Your task to perform on an android device: What is the recent news? Image 0: 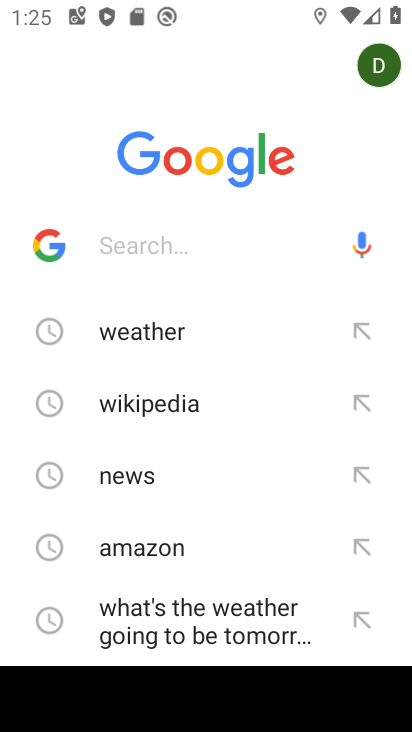
Step 0: press home button
Your task to perform on an android device: What is the recent news? Image 1: 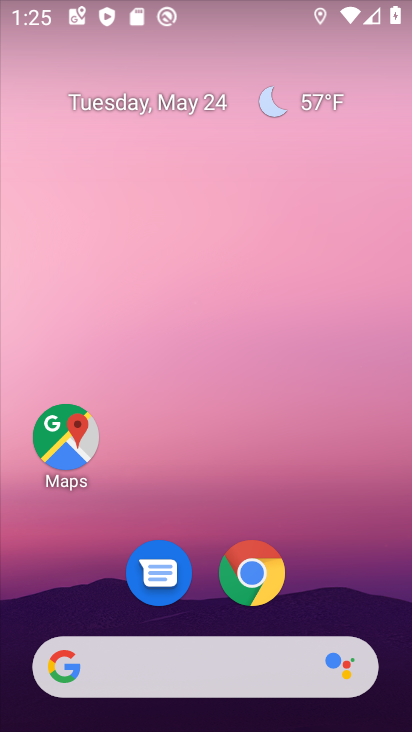
Step 1: drag from (357, 585) to (369, 104)
Your task to perform on an android device: What is the recent news? Image 2: 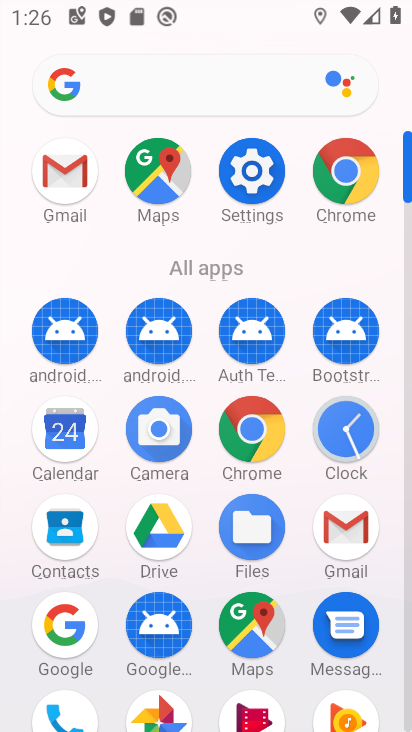
Step 2: click (247, 449)
Your task to perform on an android device: What is the recent news? Image 3: 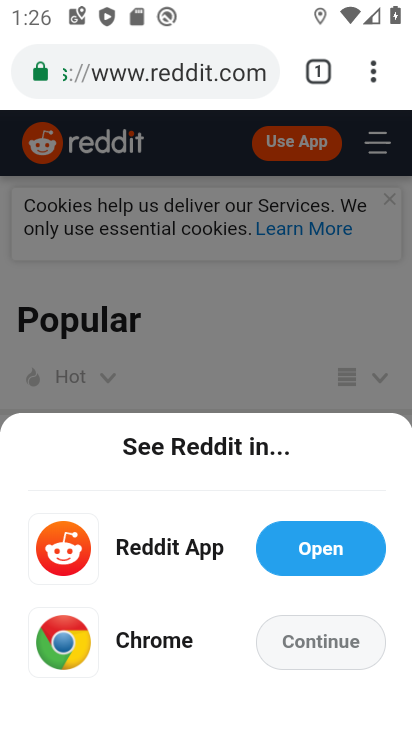
Step 3: click (152, 84)
Your task to perform on an android device: What is the recent news? Image 4: 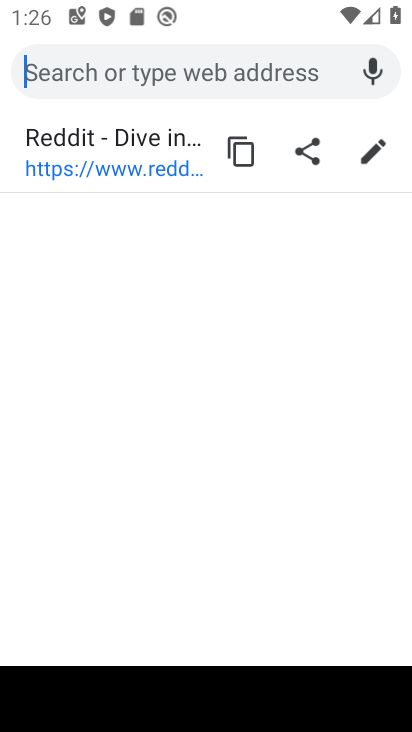
Step 4: type "what is the recent news"
Your task to perform on an android device: What is the recent news? Image 5: 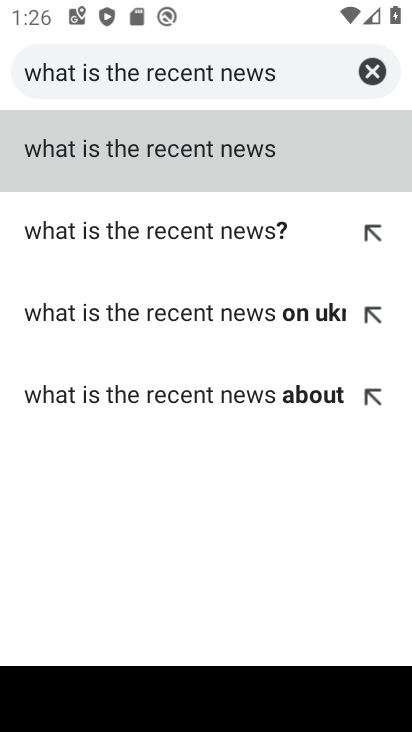
Step 5: click (123, 165)
Your task to perform on an android device: What is the recent news? Image 6: 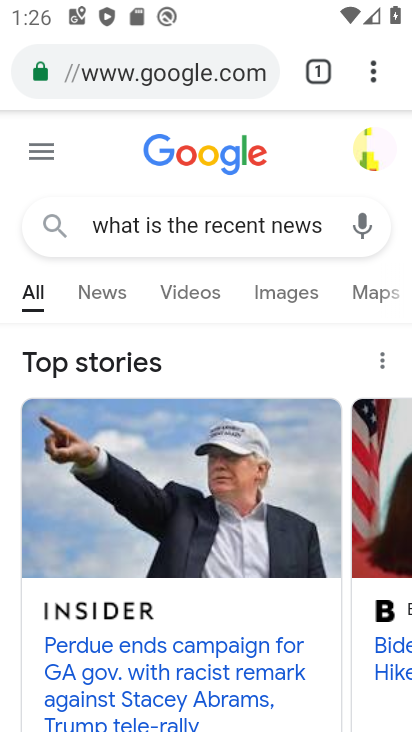
Step 6: task complete